Your task to perform on an android device: uninstall "Spotify" Image 0: 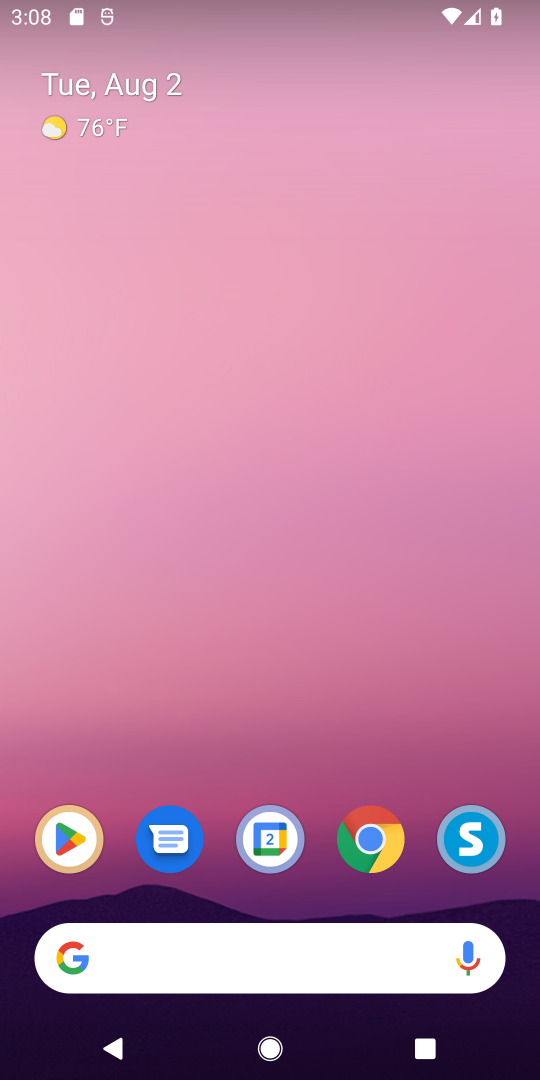
Step 0: click (83, 850)
Your task to perform on an android device: uninstall "Spotify" Image 1: 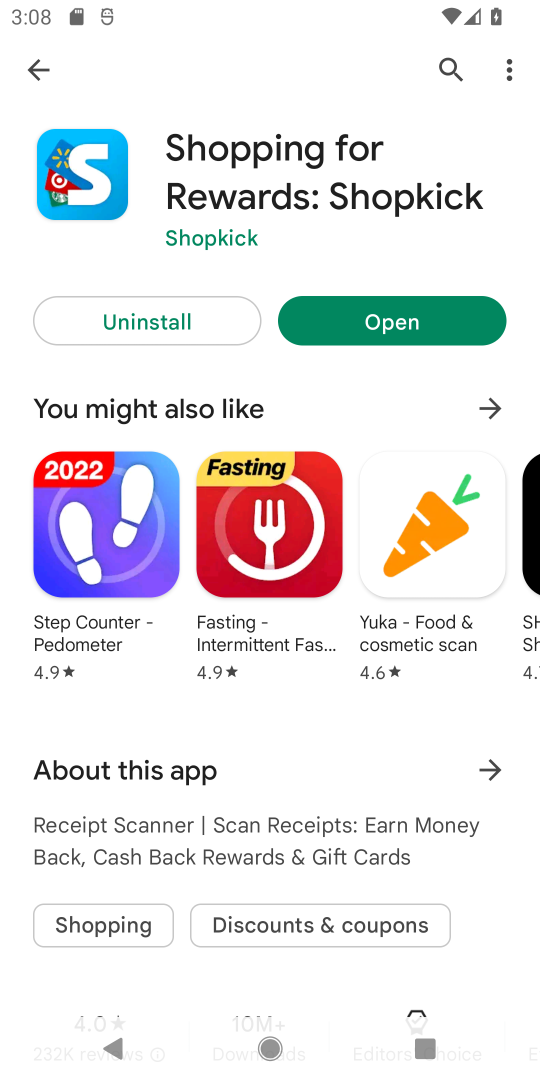
Step 1: click (443, 64)
Your task to perform on an android device: uninstall "Spotify" Image 2: 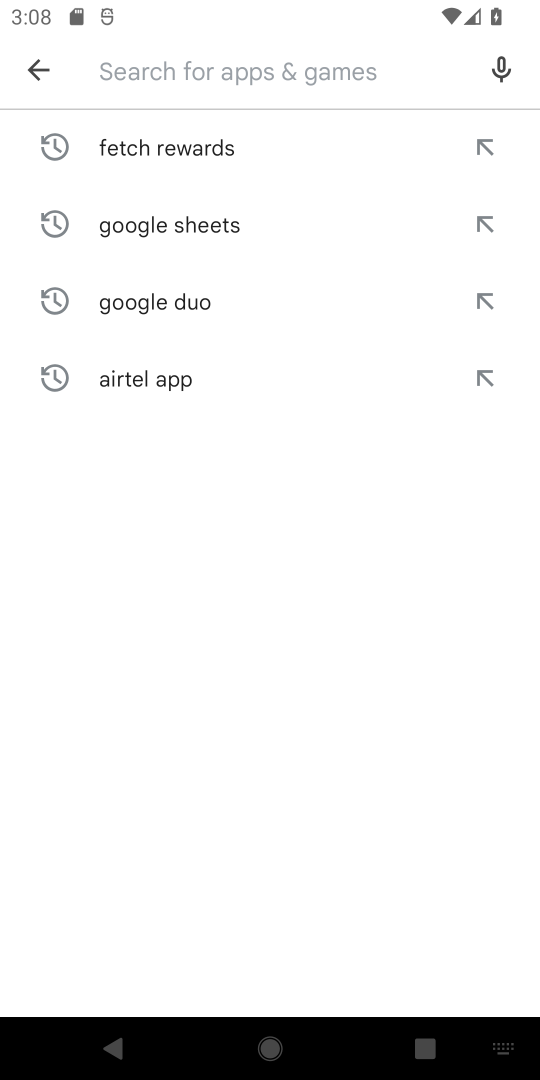
Step 2: type "spotify"
Your task to perform on an android device: uninstall "Spotify" Image 3: 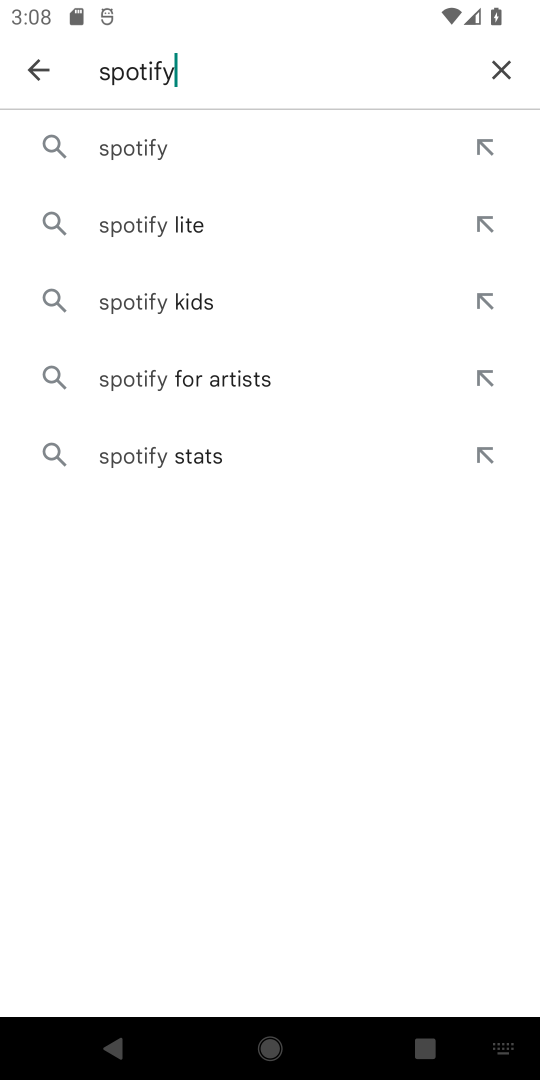
Step 3: click (397, 146)
Your task to perform on an android device: uninstall "Spotify" Image 4: 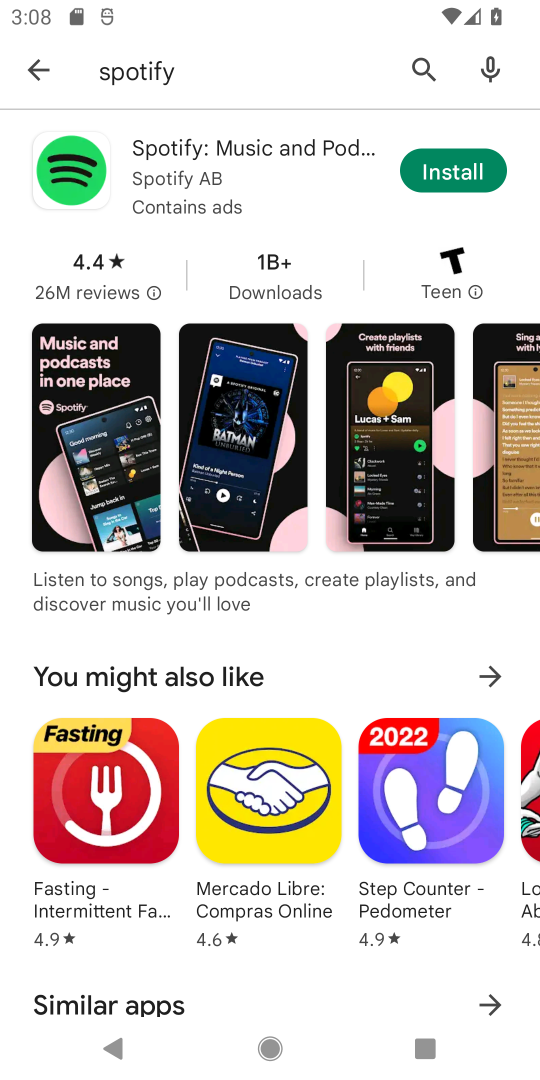
Step 4: click (418, 177)
Your task to perform on an android device: uninstall "Spotify" Image 5: 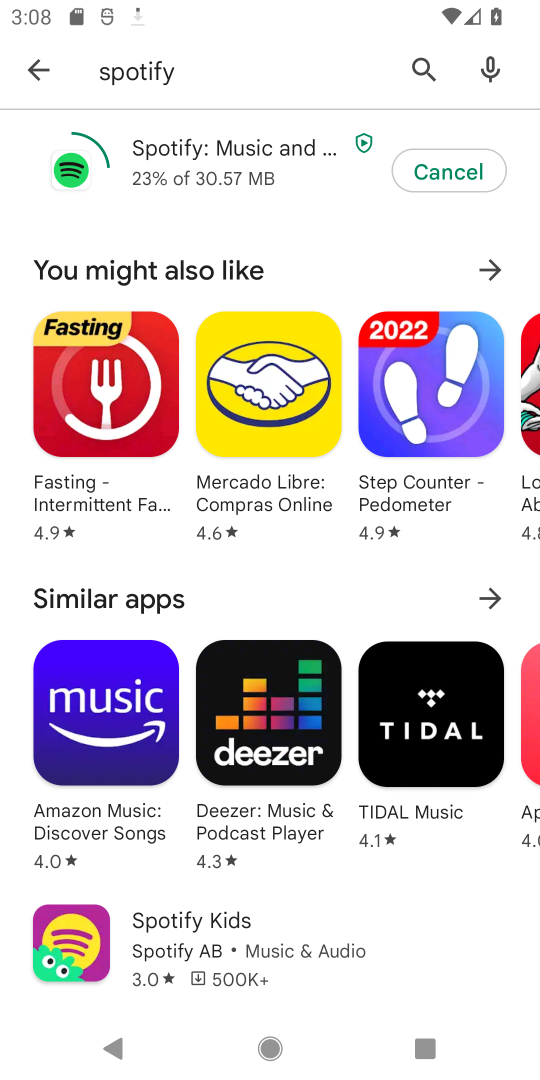
Step 5: task complete